Your task to perform on an android device: Do I have any events today? Image 0: 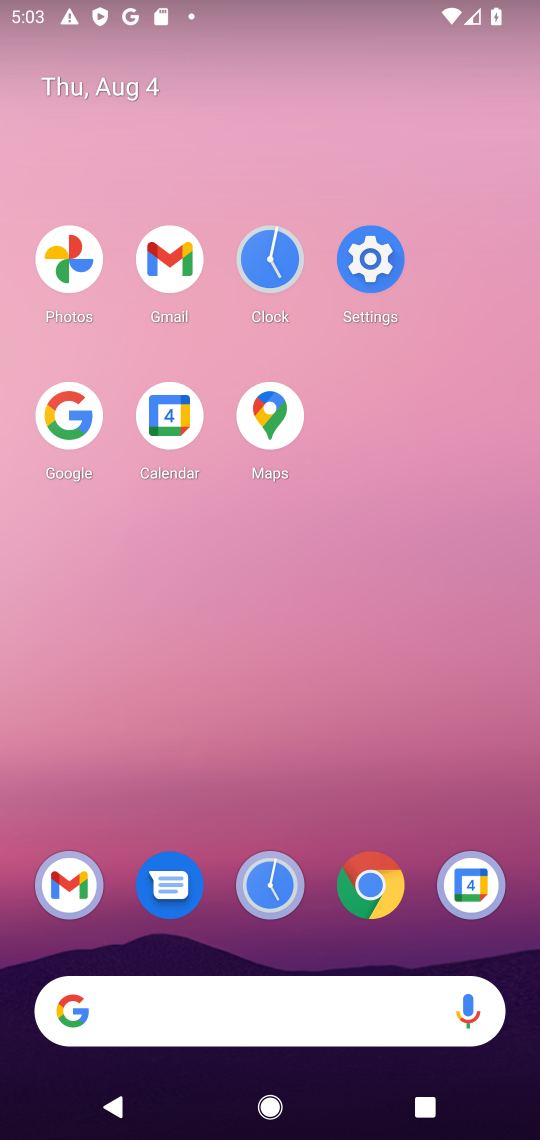
Step 0: click (168, 409)
Your task to perform on an android device: Do I have any events today? Image 1: 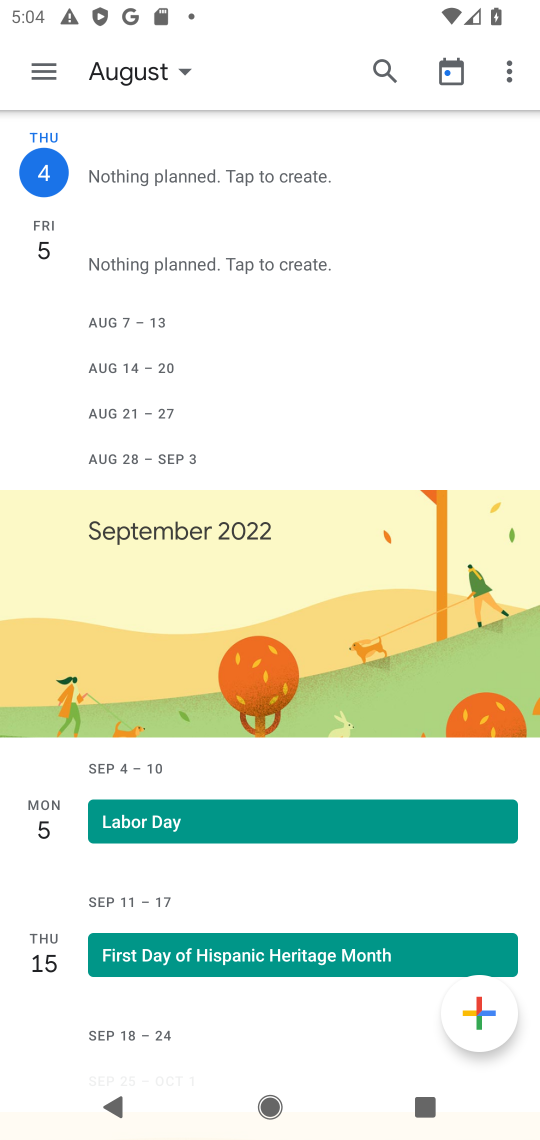
Step 1: click (252, 178)
Your task to perform on an android device: Do I have any events today? Image 2: 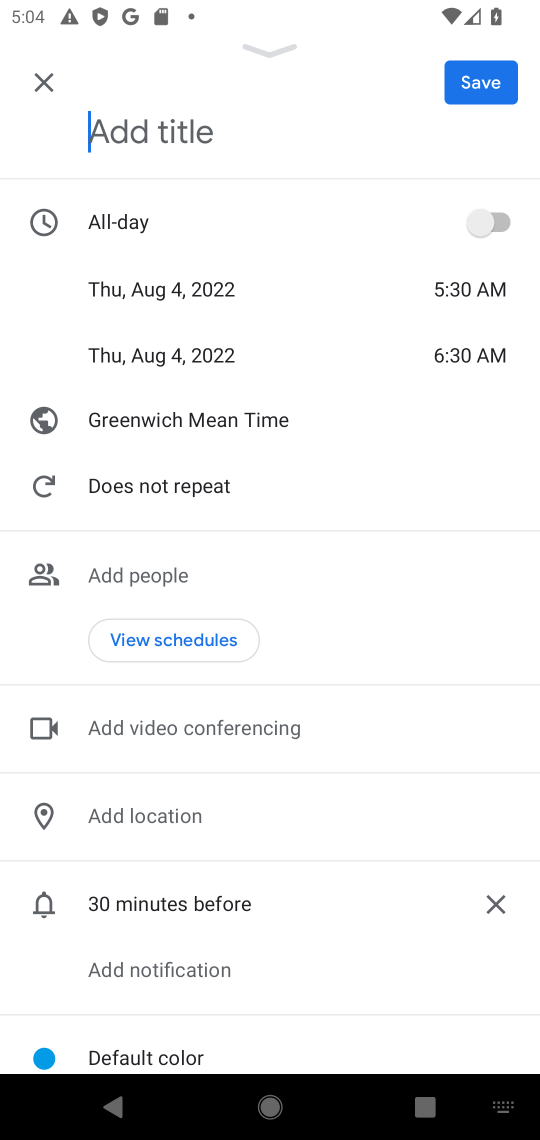
Step 2: task complete